Your task to perform on an android device: Check the weather Image 0: 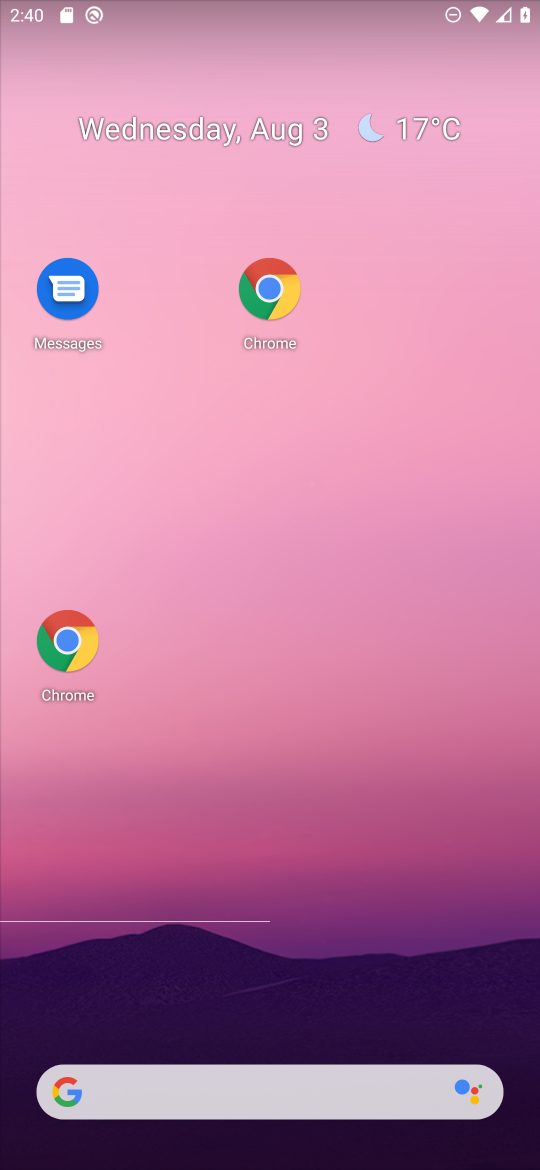
Step 0: drag from (368, 1052) to (349, 594)
Your task to perform on an android device: Check the weather Image 1: 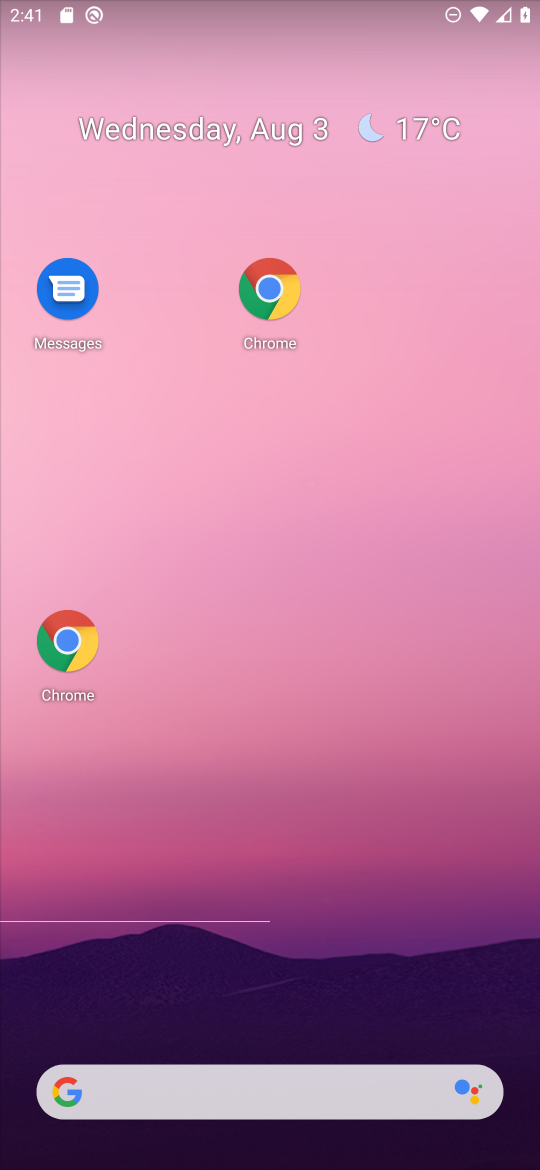
Step 1: click (349, 594)
Your task to perform on an android device: Check the weather Image 2: 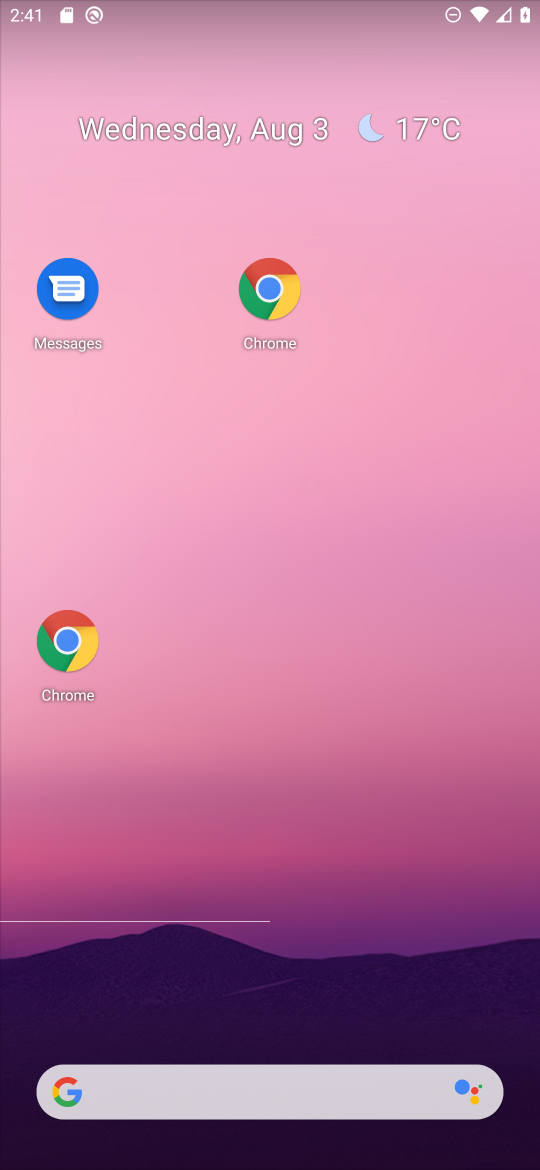
Step 2: drag from (349, 594) to (270, 661)
Your task to perform on an android device: Check the weather Image 3: 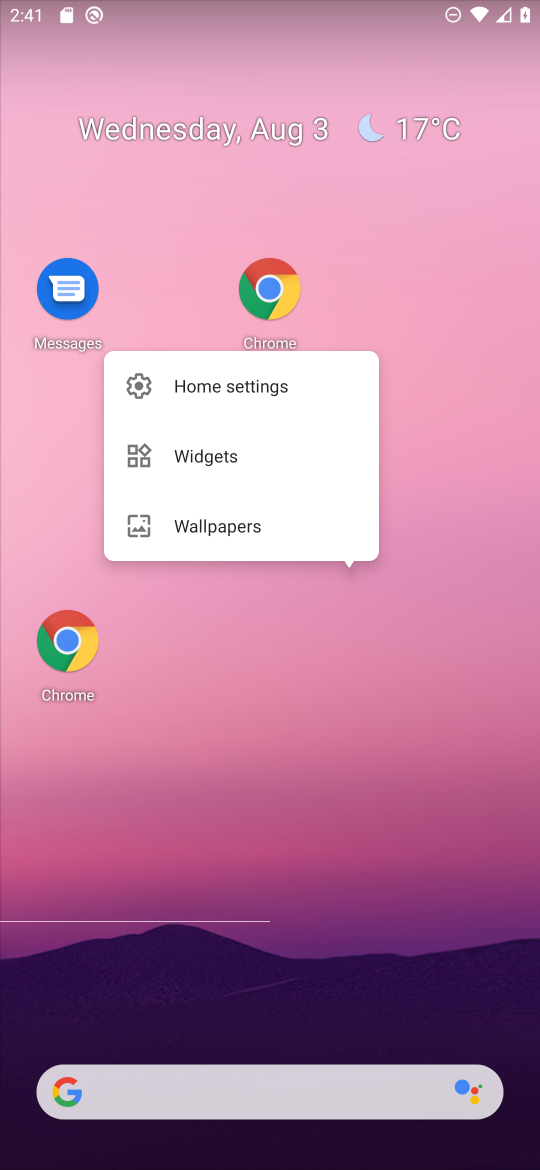
Step 3: click (280, 1080)
Your task to perform on an android device: Check the weather Image 4: 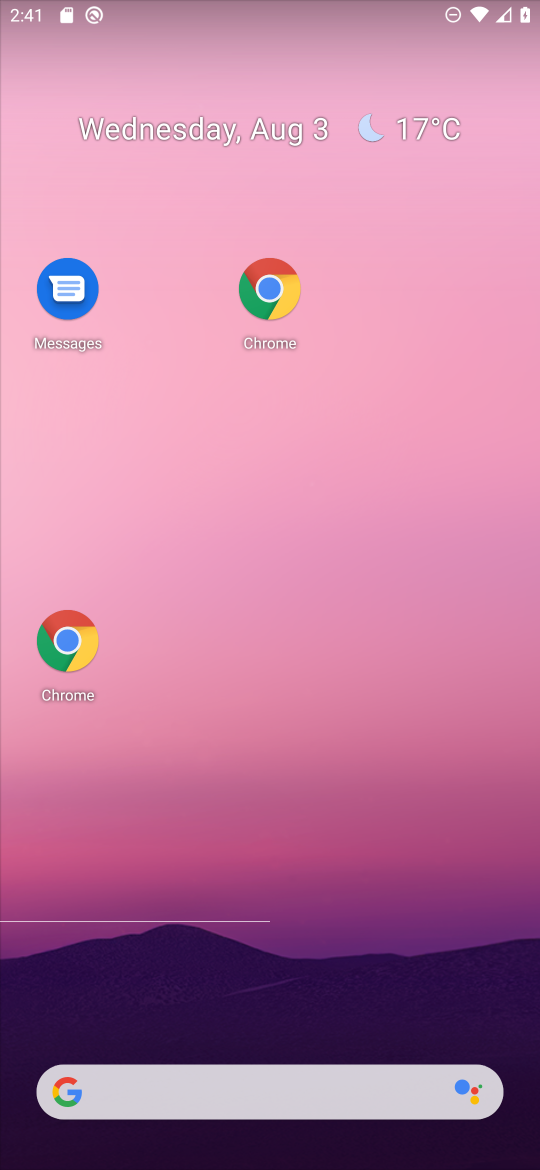
Step 4: click (280, 1080)
Your task to perform on an android device: Check the weather Image 5: 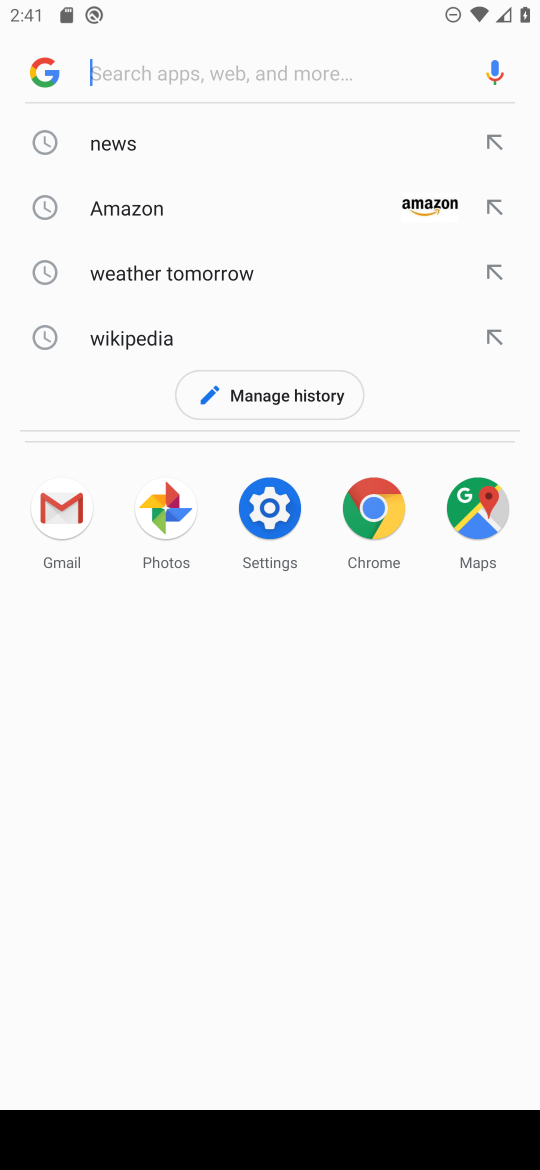
Step 5: type "weather"
Your task to perform on an android device: Check the weather Image 6: 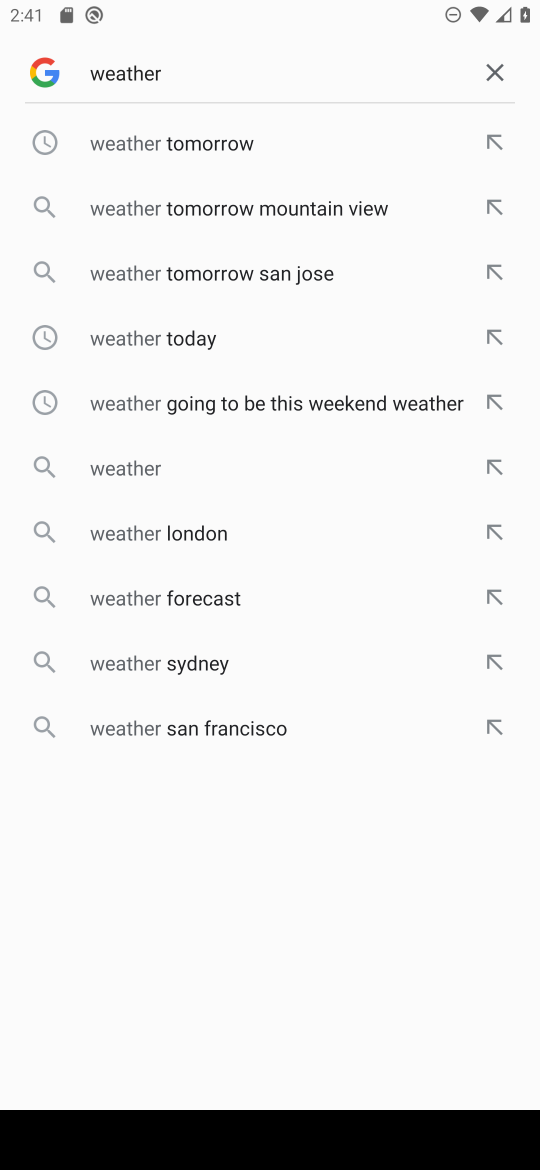
Step 6: click (165, 355)
Your task to perform on an android device: Check the weather Image 7: 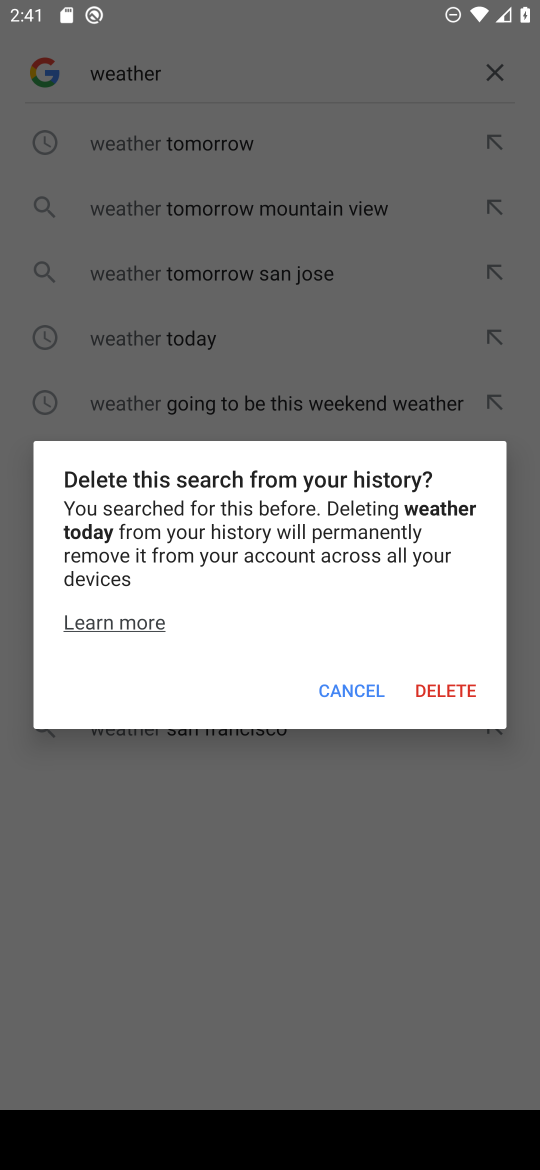
Step 7: click (449, 685)
Your task to perform on an android device: Check the weather Image 8: 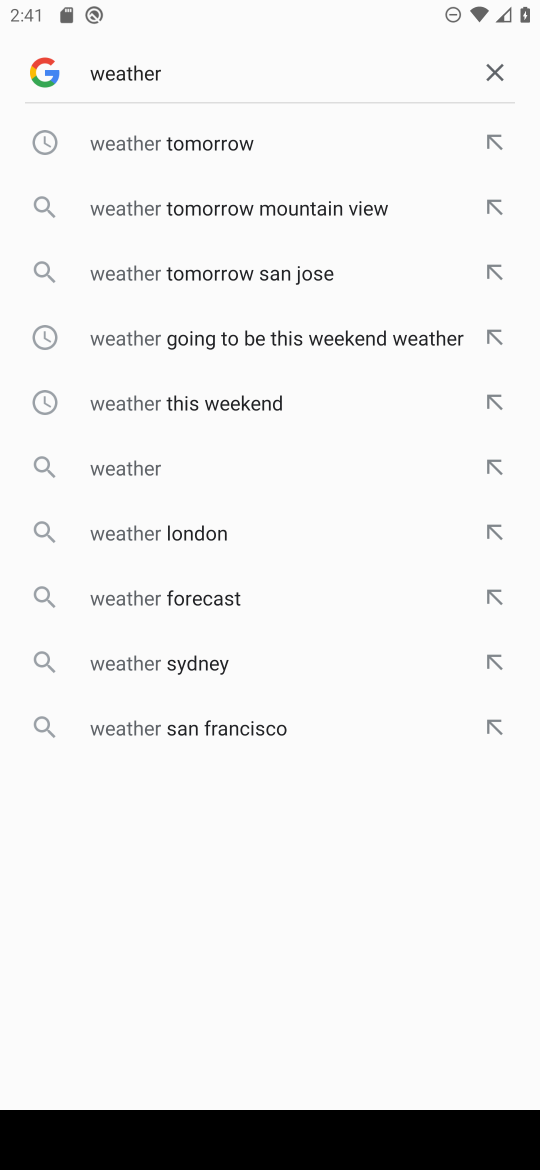
Step 8: task complete